Your task to perform on an android device: Show me productivity apps on the Play Store Image 0: 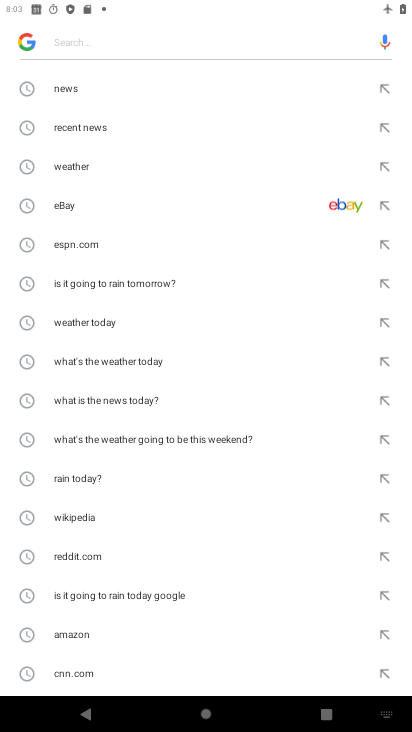
Step 0: press home button
Your task to perform on an android device: Show me productivity apps on the Play Store Image 1: 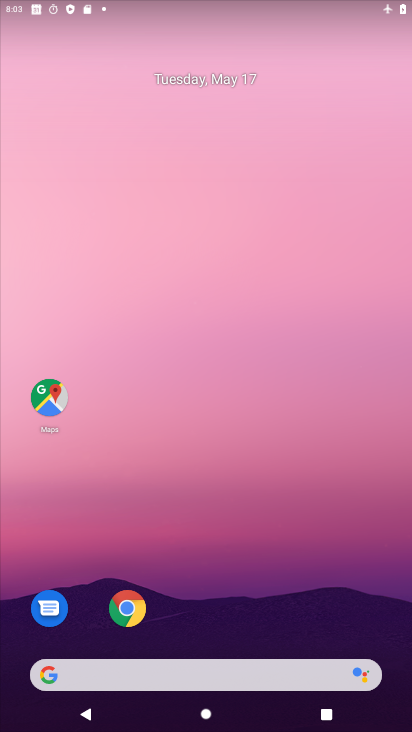
Step 1: drag from (284, 610) to (297, 213)
Your task to perform on an android device: Show me productivity apps on the Play Store Image 2: 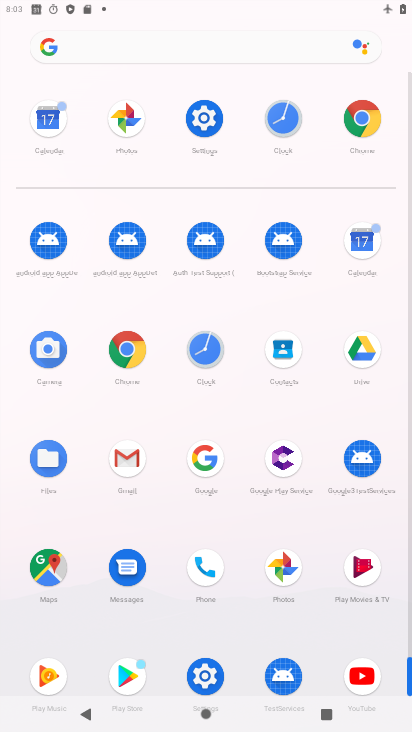
Step 2: click (135, 665)
Your task to perform on an android device: Show me productivity apps on the Play Store Image 3: 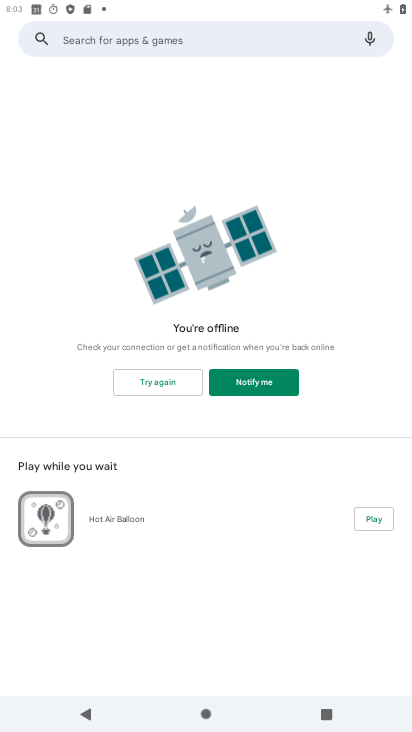
Step 3: task complete